Your task to perform on an android device: turn pop-ups off in chrome Image 0: 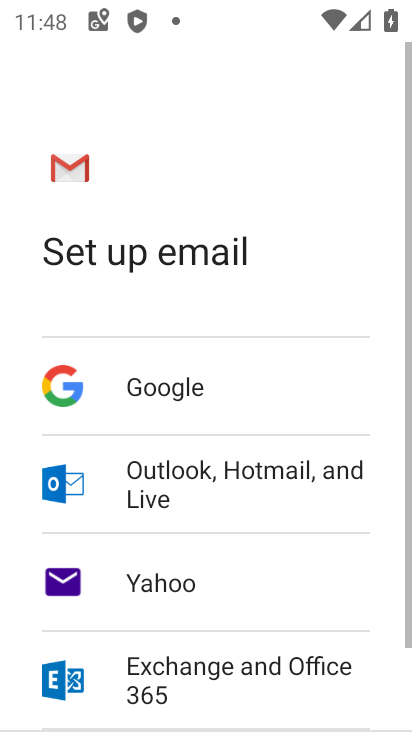
Step 0: press back button
Your task to perform on an android device: turn pop-ups off in chrome Image 1: 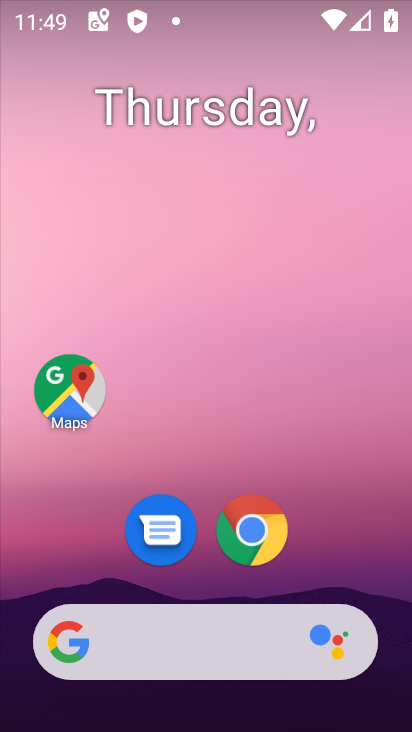
Step 1: click (251, 531)
Your task to perform on an android device: turn pop-ups off in chrome Image 2: 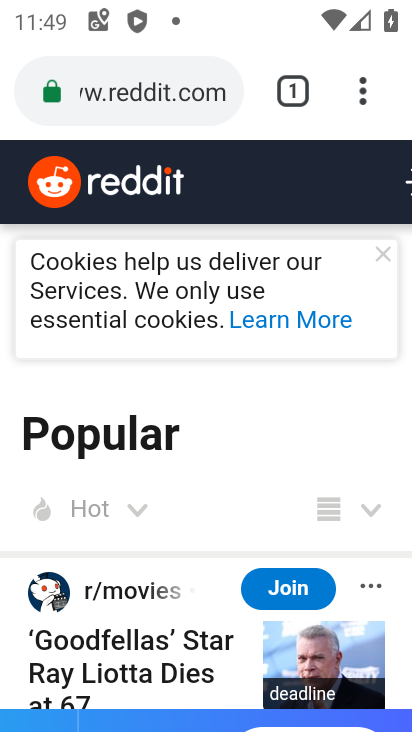
Step 2: click (363, 91)
Your task to perform on an android device: turn pop-ups off in chrome Image 3: 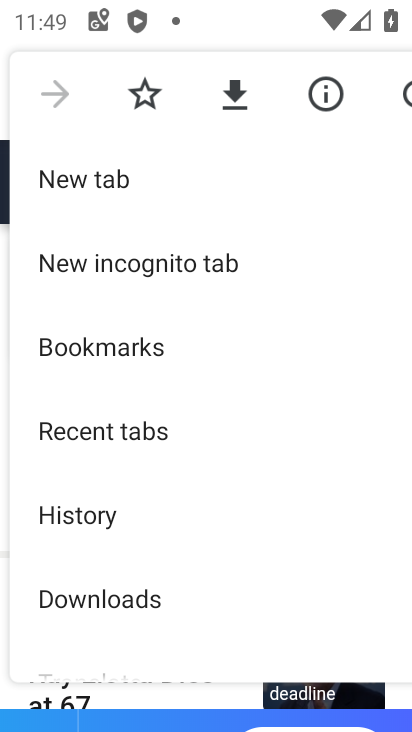
Step 3: drag from (142, 522) to (199, 430)
Your task to perform on an android device: turn pop-ups off in chrome Image 4: 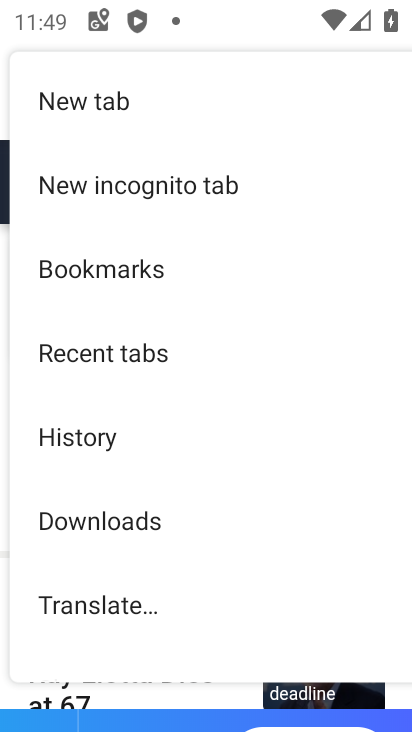
Step 4: drag from (139, 553) to (224, 451)
Your task to perform on an android device: turn pop-ups off in chrome Image 5: 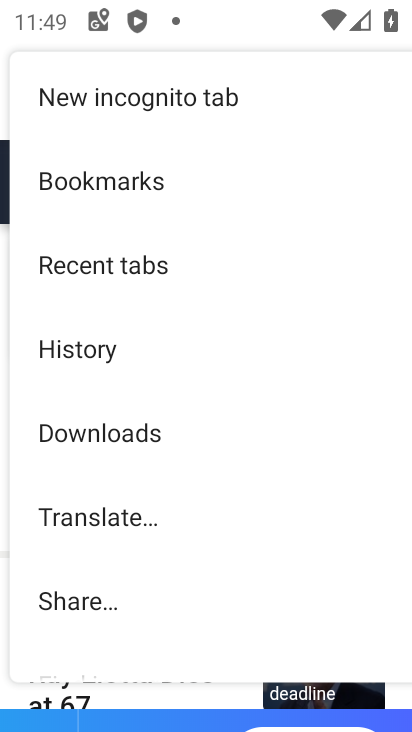
Step 5: drag from (119, 558) to (183, 447)
Your task to perform on an android device: turn pop-ups off in chrome Image 6: 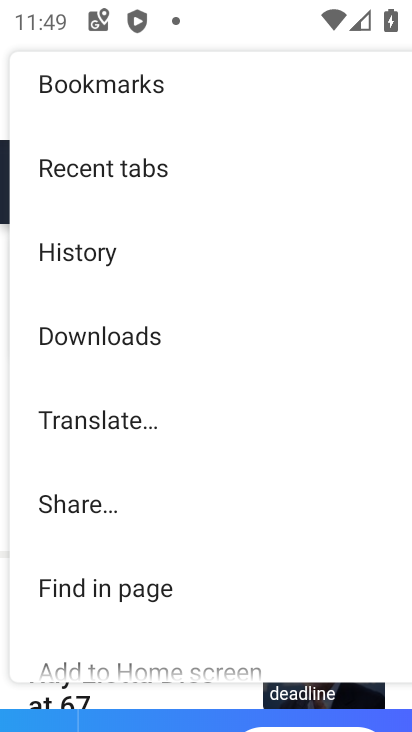
Step 6: drag from (111, 534) to (223, 403)
Your task to perform on an android device: turn pop-ups off in chrome Image 7: 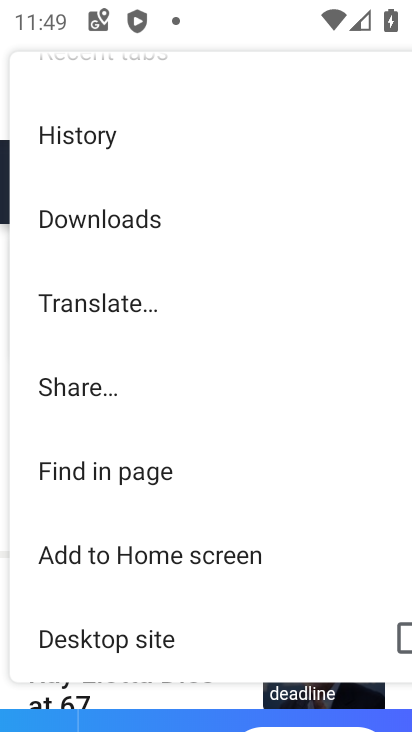
Step 7: drag from (116, 510) to (232, 386)
Your task to perform on an android device: turn pop-ups off in chrome Image 8: 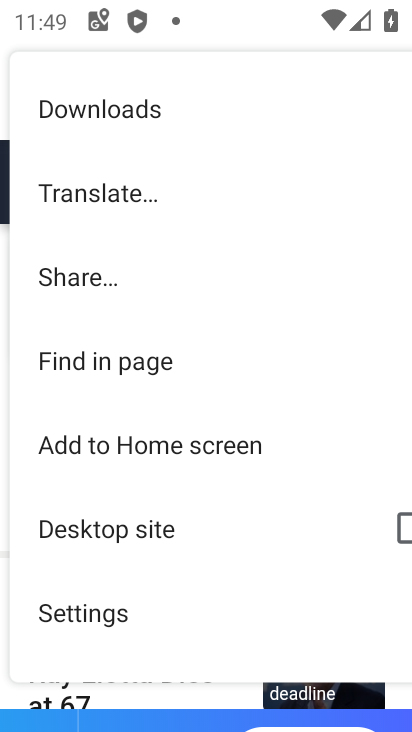
Step 8: drag from (137, 477) to (215, 358)
Your task to perform on an android device: turn pop-ups off in chrome Image 9: 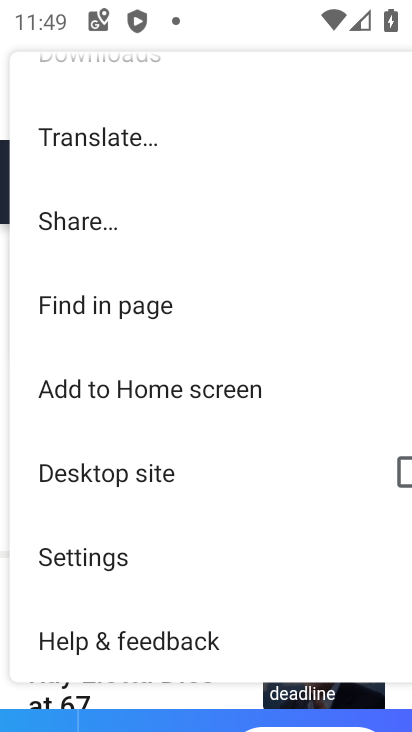
Step 9: click (108, 568)
Your task to perform on an android device: turn pop-ups off in chrome Image 10: 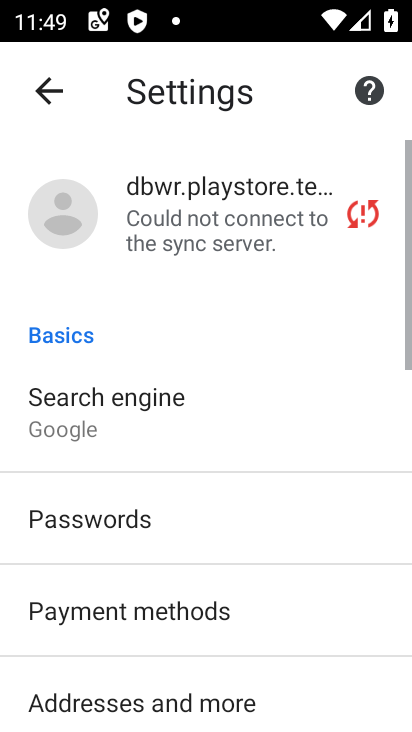
Step 10: drag from (181, 466) to (221, 416)
Your task to perform on an android device: turn pop-ups off in chrome Image 11: 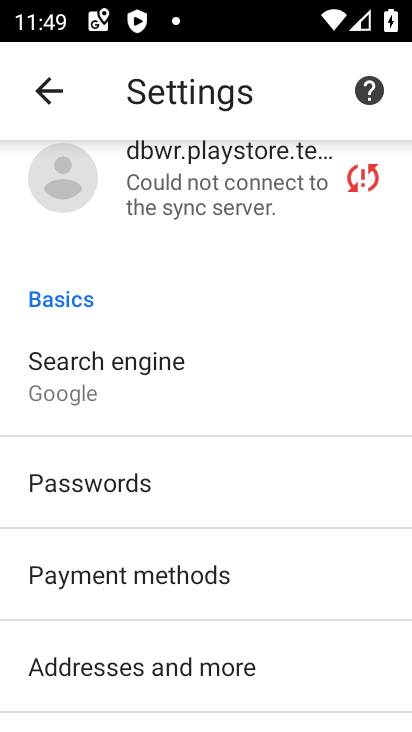
Step 11: drag from (149, 546) to (222, 452)
Your task to perform on an android device: turn pop-ups off in chrome Image 12: 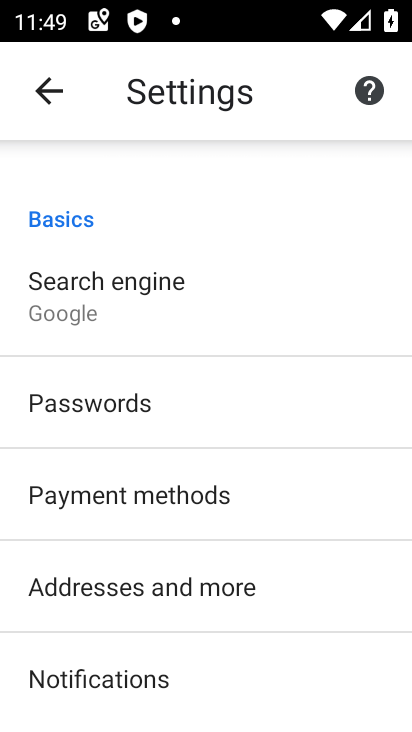
Step 12: drag from (144, 551) to (231, 453)
Your task to perform on an android device: turn pop-ups off in chrome Image 13: 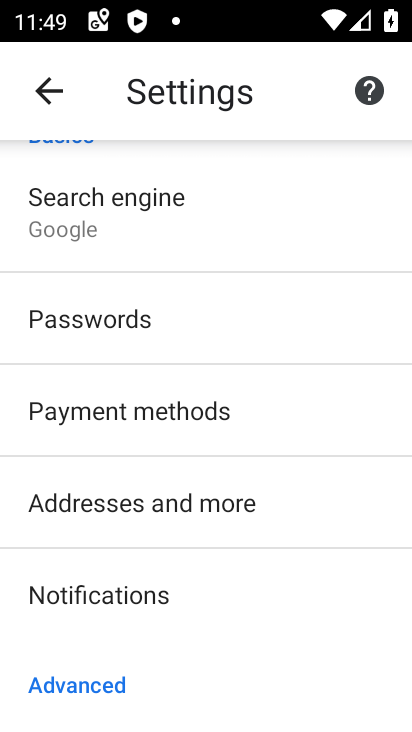
Step 13: drag from (171, 560) to (244, 471)
Your task to perform on an android device: turn pop-ups off in chrome Image 14: 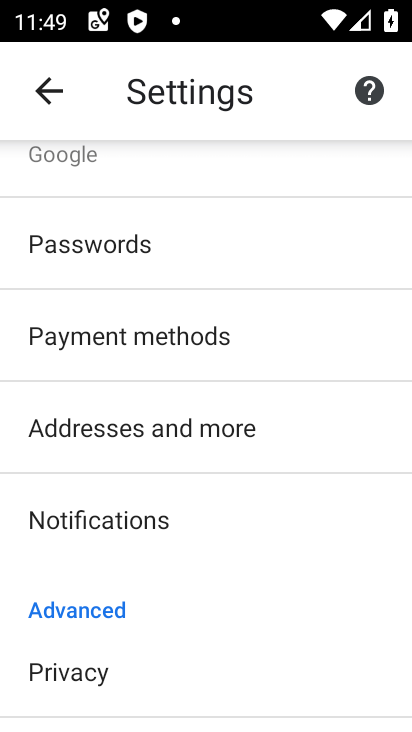
Step 14: drag from (161, 566) to (232, 469)
Your task to perform on an android device: turn pop-ups off in chrome Image 15: 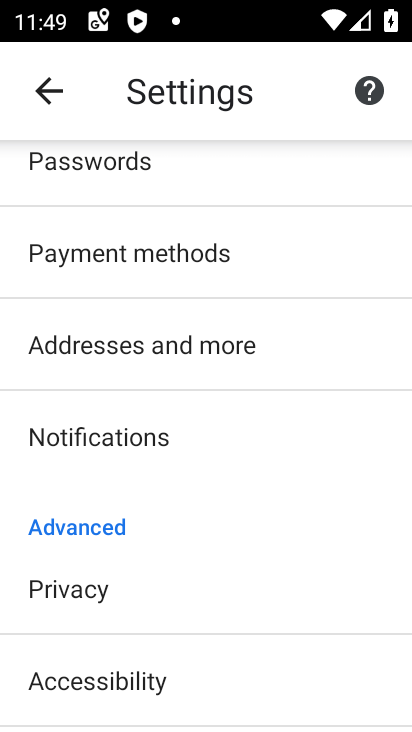
Step 15: drag from (165, 603) to (215, 503)
Your task to perform on an android device: turn pop-ups off in chrome Image 16: 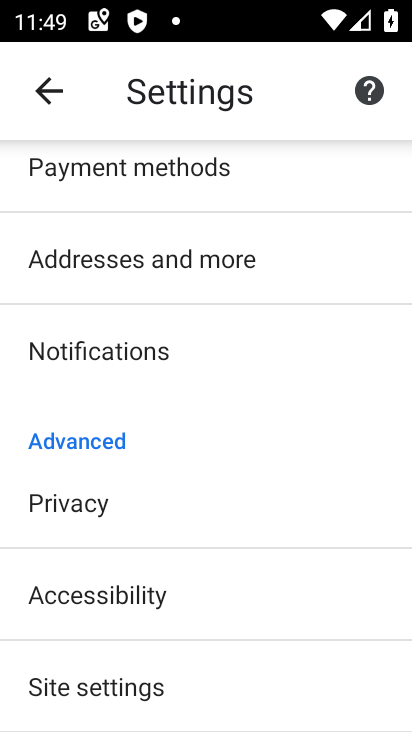
Step 16: drag from (178, 607) to (222, 522)
Your task to perform on an android device: turn pop-ups off in chrome Image 17: 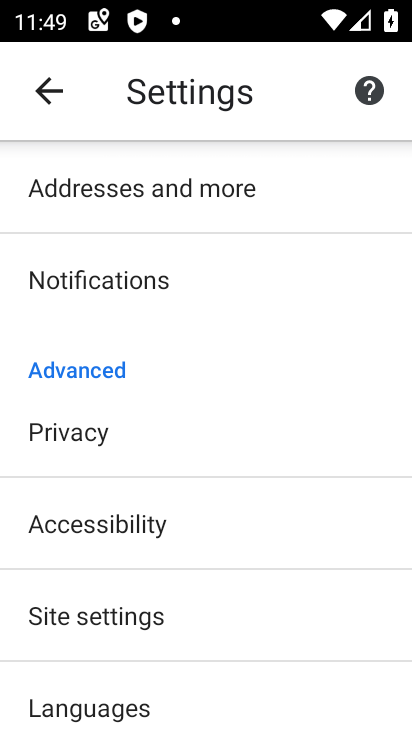
Step 17: drag from (182, 610) to (219, 518)
Your task to perform on an android device: turn pop-ups off in chrome Image 18: 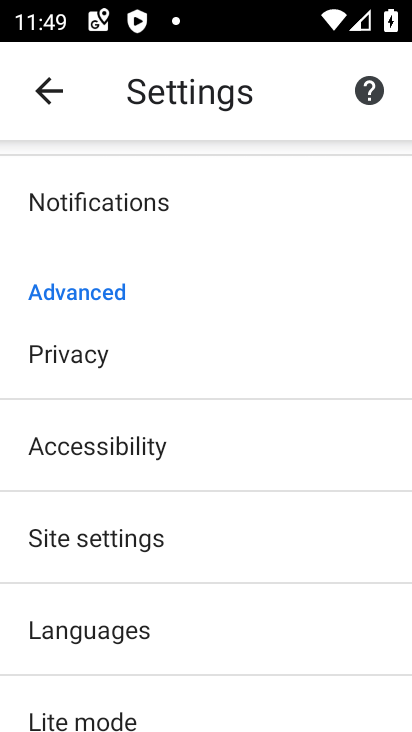
Step 18: drag from (155, 615) to (203, 531)
Your task to perform on an android device: turn pop-ups off in chrome Image 19: 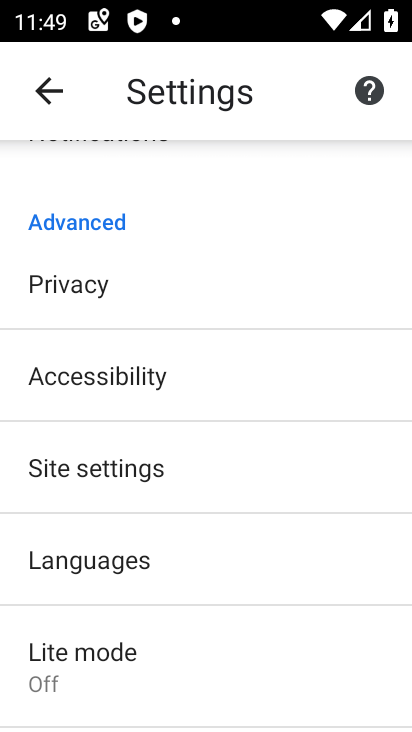
Step 19: click (144, 478)
Your task to perform on an android device: turn pop-ups off in chrome Image 20: 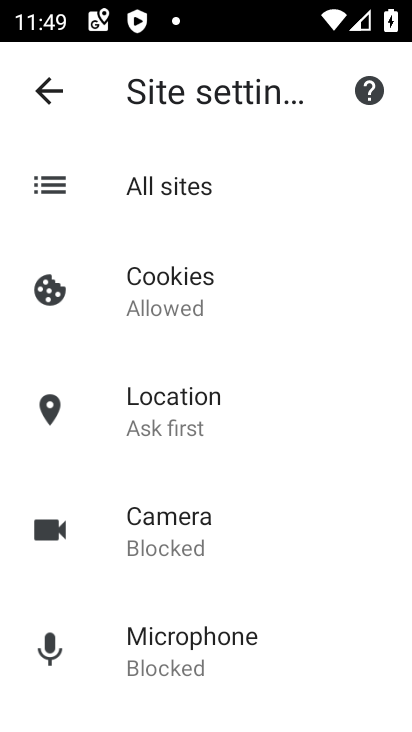
Step 20: drag from (187, 597) to (218, 523)
Your task to perform on an android device: turn pop-ups off in chrome Image 21: 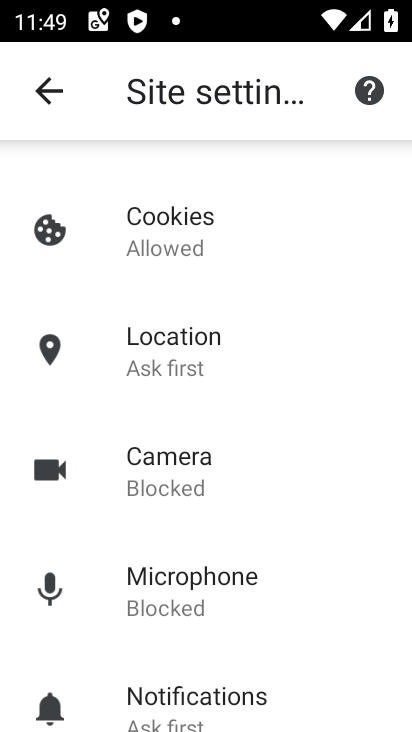
Step 21: drag from (198, 658) to (216, 551)
Your task to perform on an android device: turn pop-ups off in chrome Image 22: 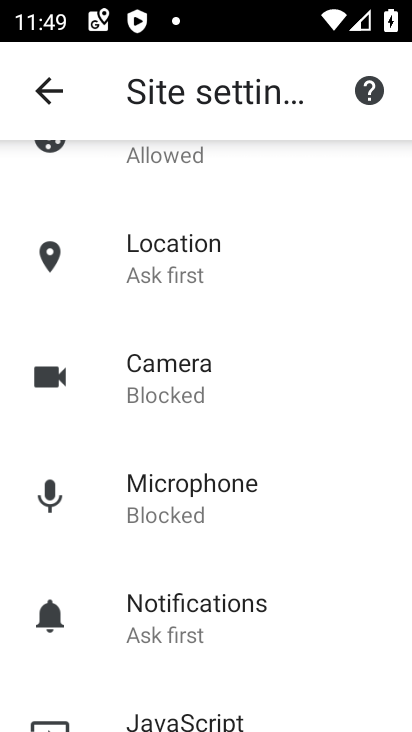
Step 22: drag from (188, 669) to (269, 523)
Your task to perform on an android device: turn pop-ups off in chrome Image 23: 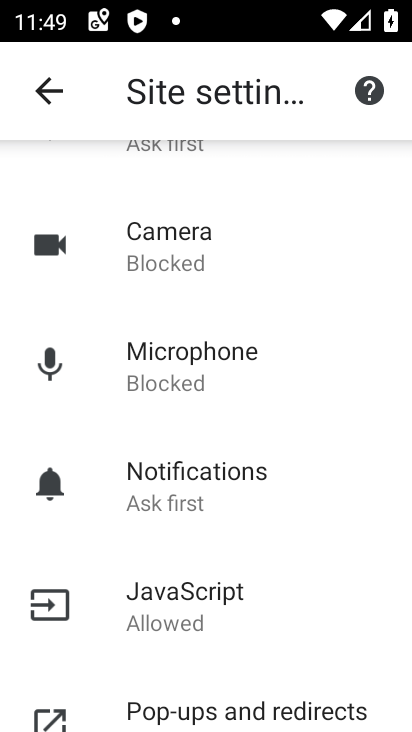
Step 23: drag from (197, 662) to (278, 541)
Your task to perform on an android device: turn pop-ups off in chrome Image 24: 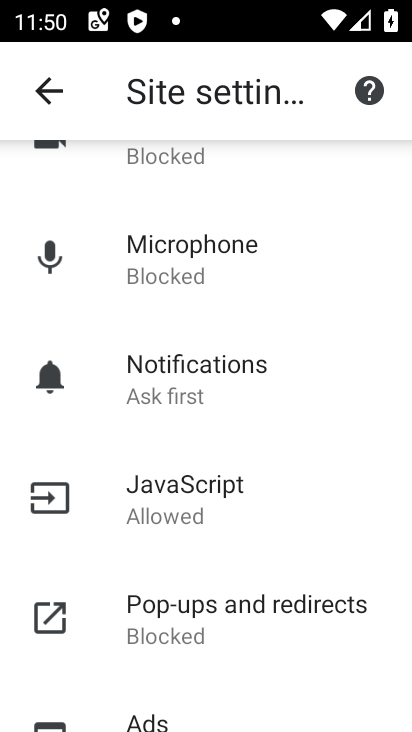
Step 24: click (270, 602)
Your task to perform on an android device: turn pop-ups off in chrome Image 25: 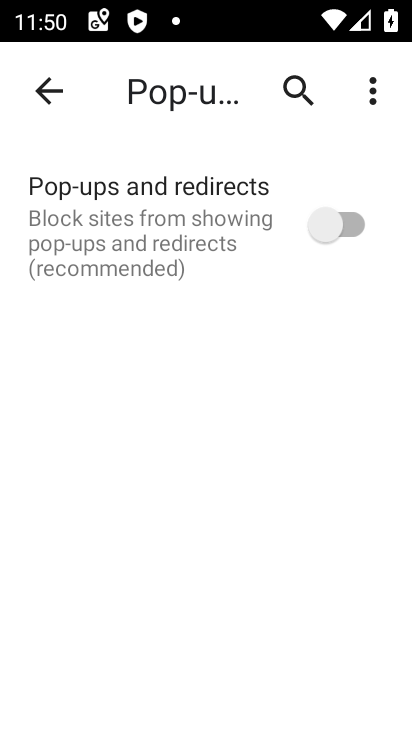
Step 25: task complete